Your task to perform on an android device: turn on notifications settings in the gmail app Image 0: 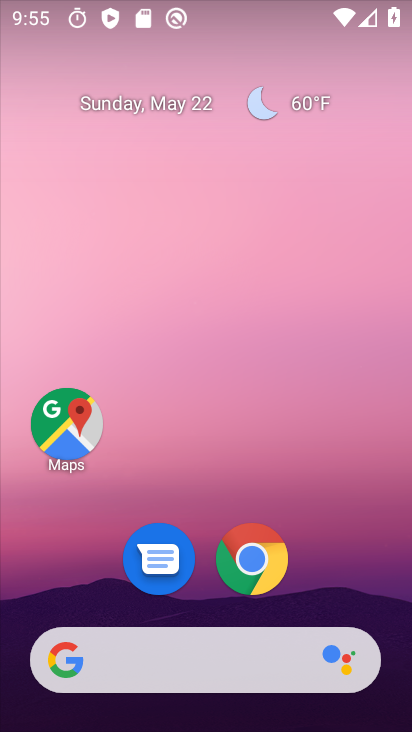
Step 0: drag from (346, 577) to (353, 123)
Your task to perform on an android device: turn on notifications settings in the gmail app Image 1: 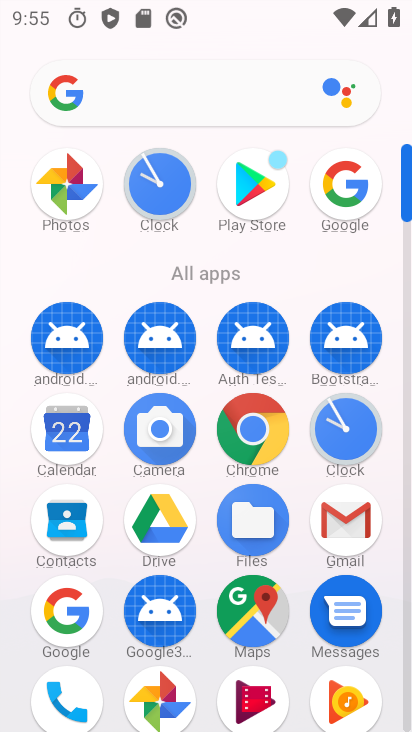
Step 1: click (357, 509)
Your task to perform on an android device: turn on notifications settings in the gmail app Image 2: 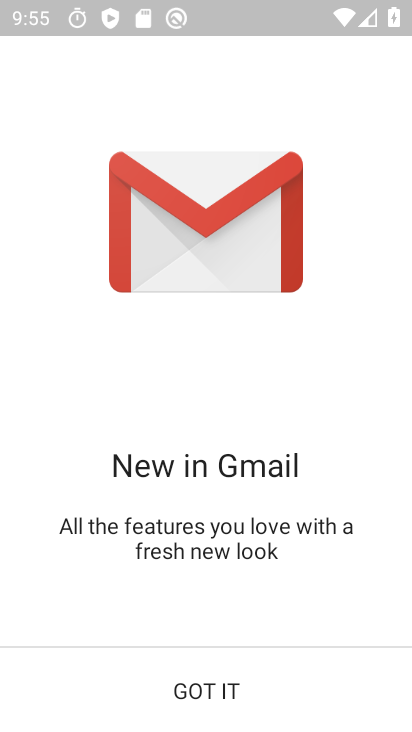
Step 2: click (186, 672)
Your task to perform on an android device: turn on notifications settings in the gmail app Image 3: 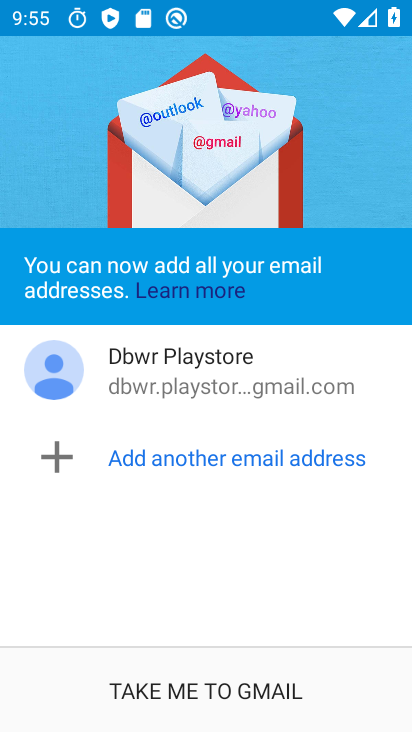
Step 3: click (231, 663)
Your task to perform on an android device: turn on notifications settings in the gmail app Image 4: 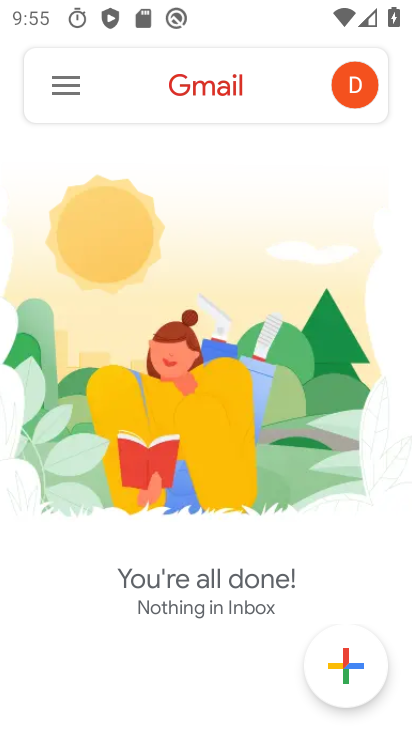
Step 4: click (80, 91)
Your task to perform on an android device: turn on notifications settings in the gmail app Image 5: 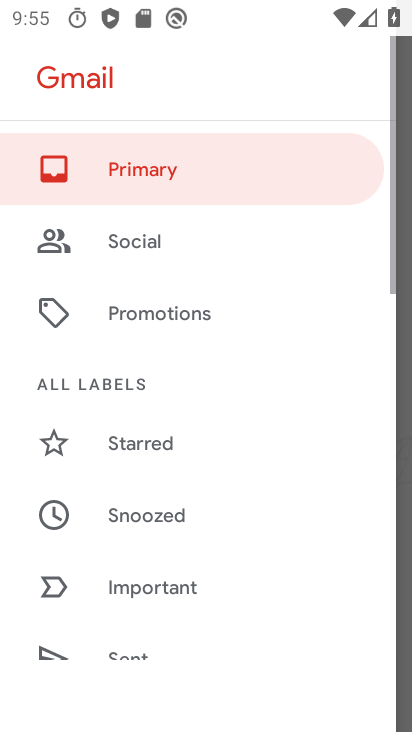
Step 5: drag from (142, 525) to (109, 144)
Your task to perform on an android device: turn on notifications settings in the gmail app Image 6: 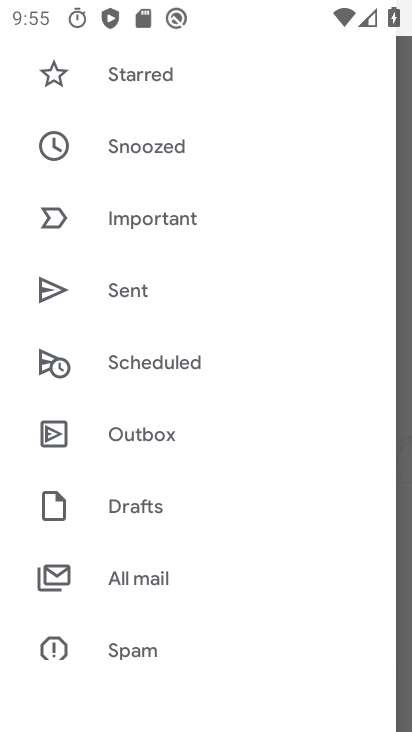
Step 6: drag from (159, 518) to (155, 166)
Your task to perform on an android device: turn on notifications settings in the gmail app Image 7: 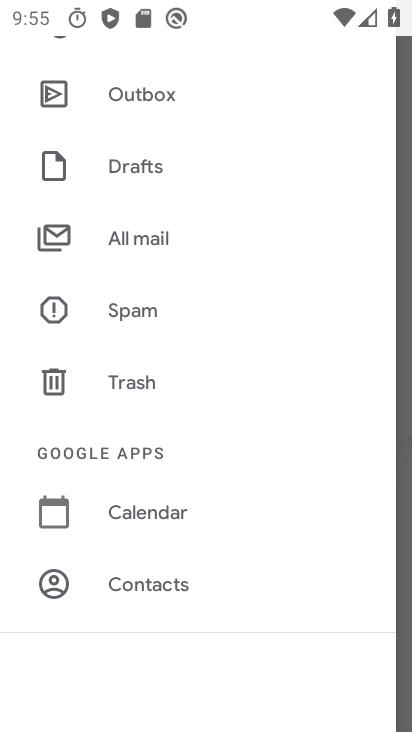
Step 7: drag from (151, 535) to (150, 178)
Your task to perform on an android device: turn on notifications settings in the gmail app Image 8: 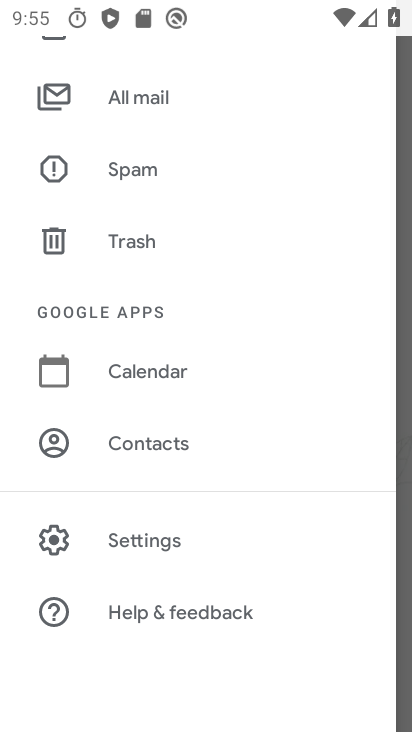
Step 8: click (147, 524)
Your task to perform on an android device: turn on notifications settings in the gmail app Image 9: 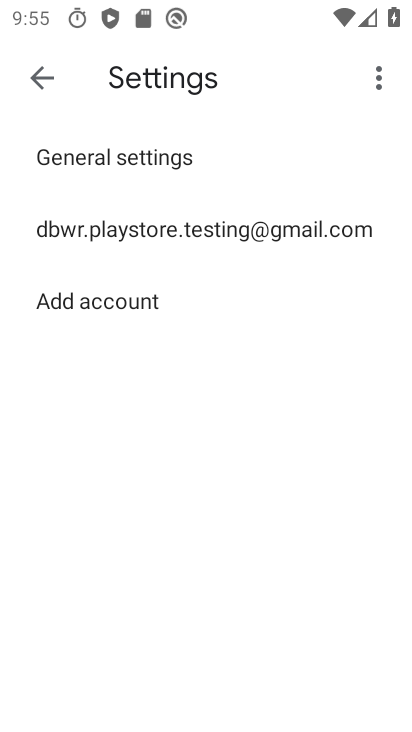
Step 9: click (145, 233)
Your task to perform on an android device: turn on notifications settings in the gmail app Image 10: 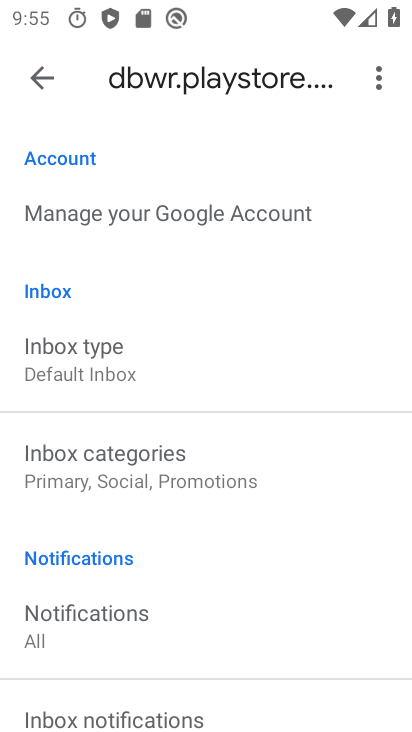
Step 10: click (109, 599)
Your task to perform on an android device: turn on notifications settings in the gmail app Image 11: 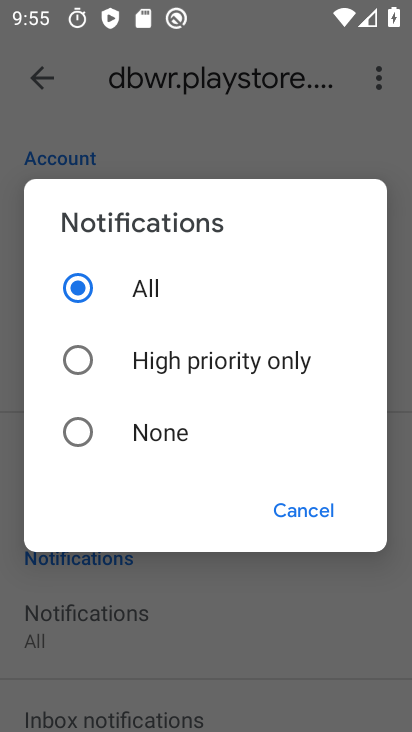
Step 11: task complete